Your task to perform on an android device: open sync settings in chrome Image 0: 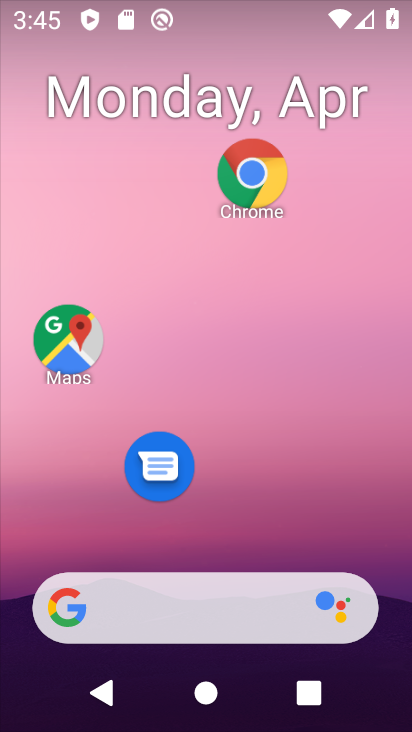
Step 0: drag from (335, 519) to (338, 148)
Your task to perform on an android device: open sync settings in chrome Image 1: 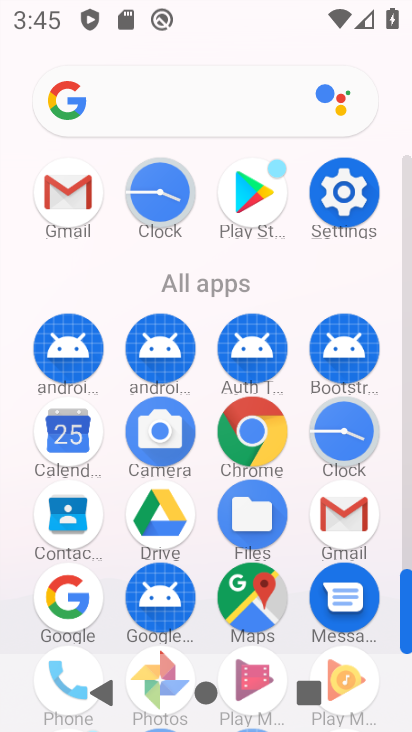
Step 1: click (262, 432)
Your task to perform on an android device: open sync settings in chrome Image 2: 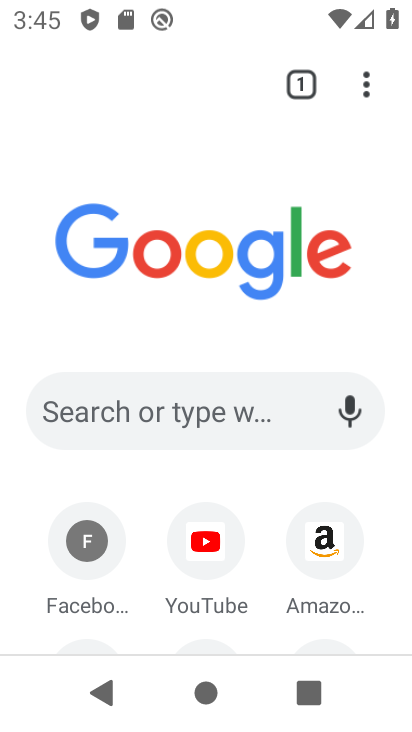
Step 2: click (380, 106)
Your task to perform on an android device: open sync settings in chrome Image 3: 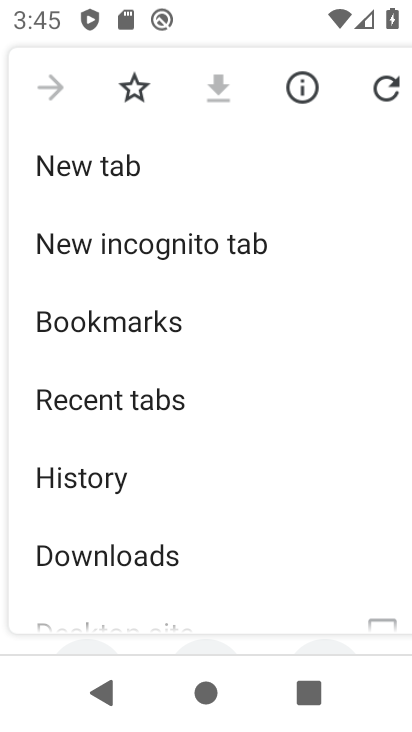
Step 3: drag from (227, 583) to (239, 201)
Your task to perform on an android device: open sync settings in chrome Image 4: 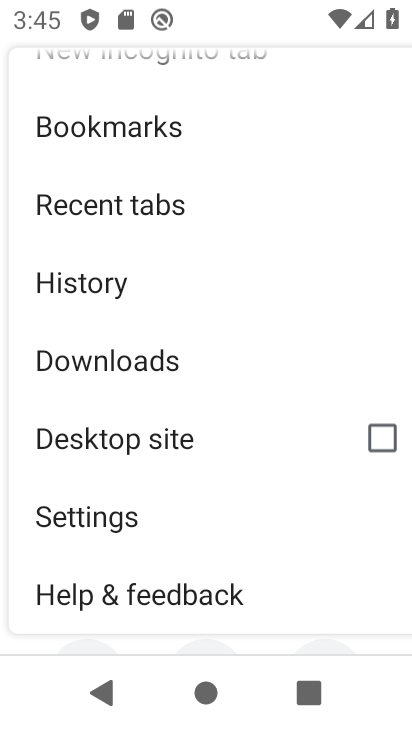
Step 4: click (227, 508)
Your task to perform on an android device: open sync settings in chrome Image 5: 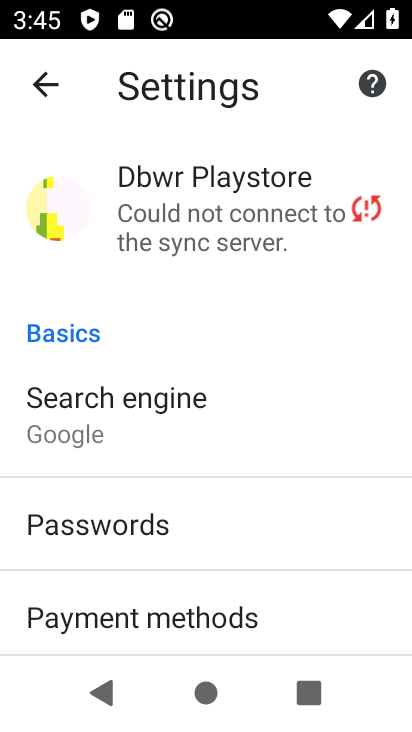
Step 5: click (248, 225)
Your task to perform on an android device: open sync settings in chrome Image 6: 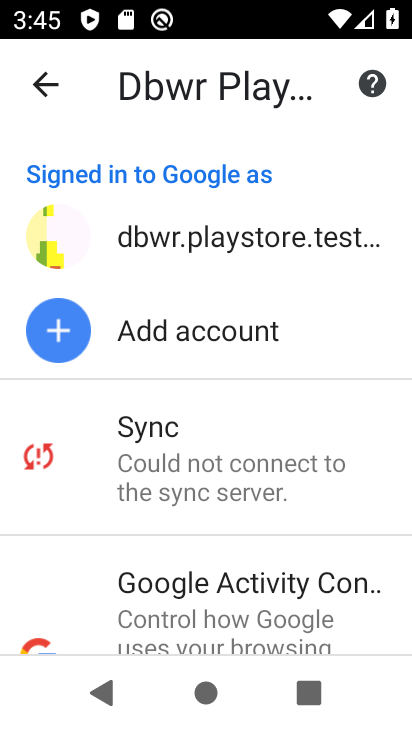
Step 6: task complete